Your task to perform on an android device: Open Yahoo.com Image 0: 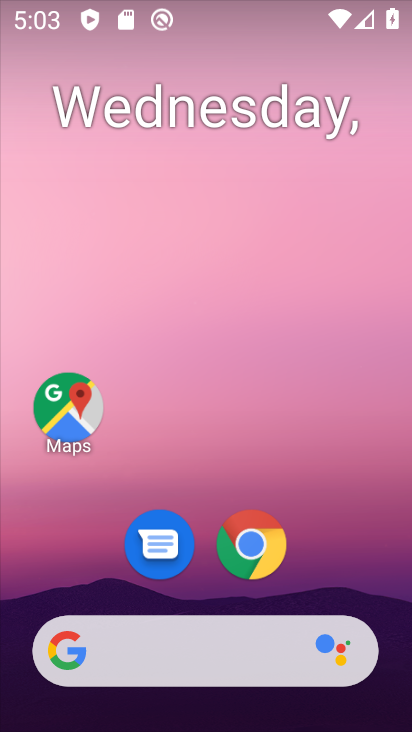
Step 0: click (252, 545)
Your task to perform on an android device: Open Yahoo.com Image 1: 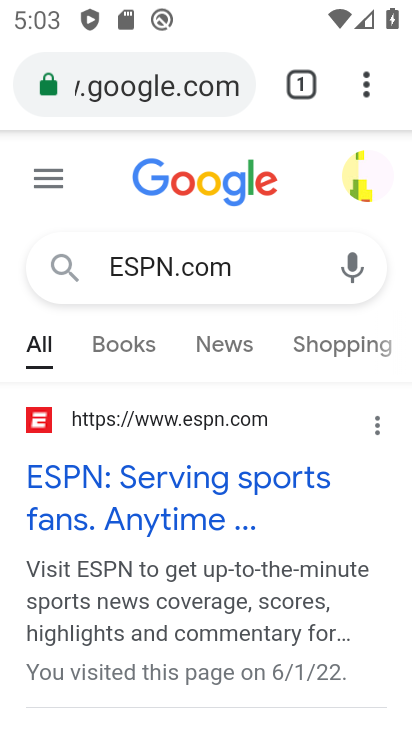
Step 1: click (248, 93)
Your task to perform on an android device: Open Yahoo.com Image 2: 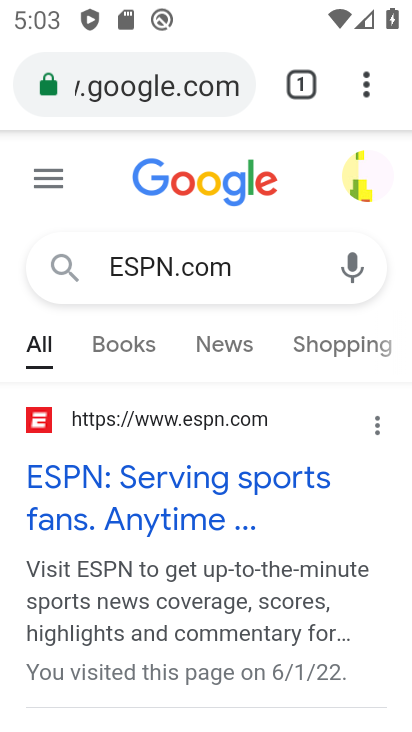
Step 2: click (236, 85)
Your task to perform on an android device: Open Yahoo.com Image 3: 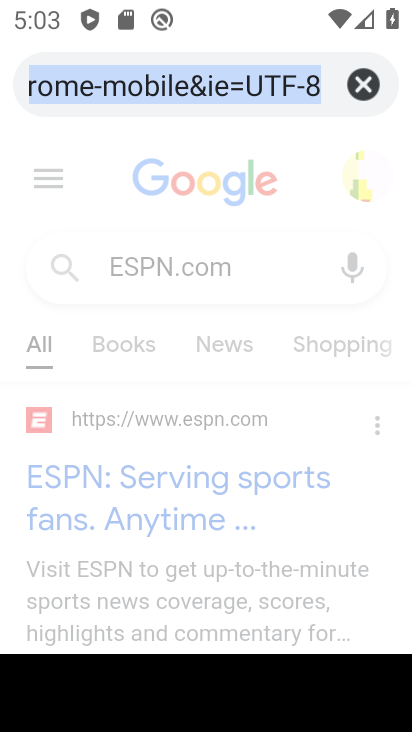
Step 3: click (361, 85)
Your task to perform on an android device: Open Yahoo.com Image 4: 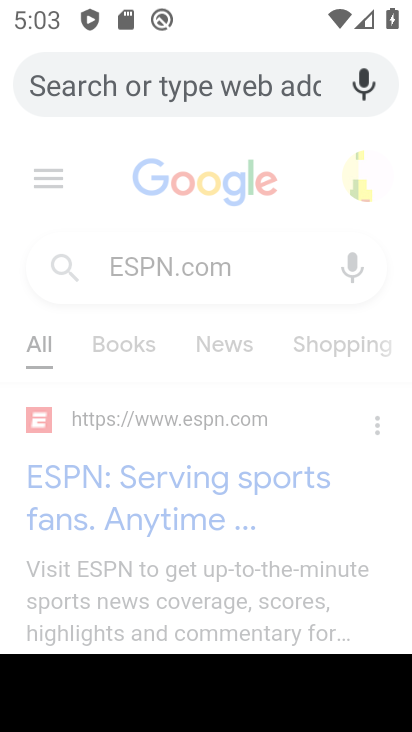
Step 4: type "Yahoo.com"
Your task to perform on an android device: Open Yahoo.com Image 5: 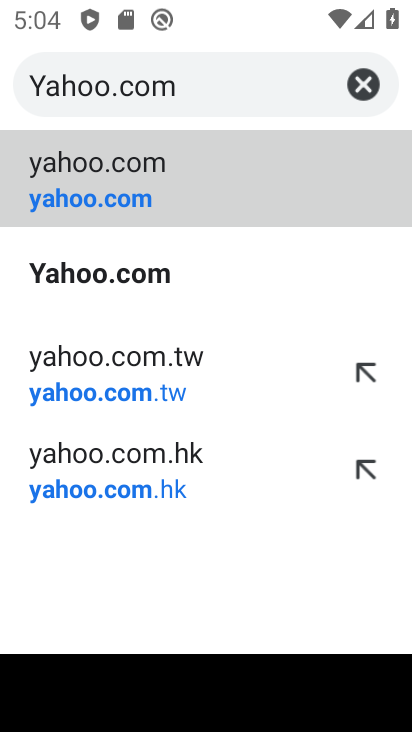
Step 5: click (93, 273)
Your task to perform on an android device: Open Yahoo.com Image 6: 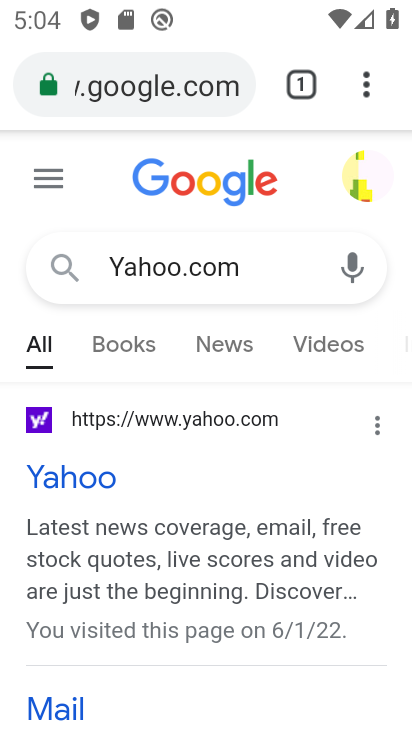
Step 6: task complete